Your task to perform on an android device: find which apps use the phone's location Image 0: 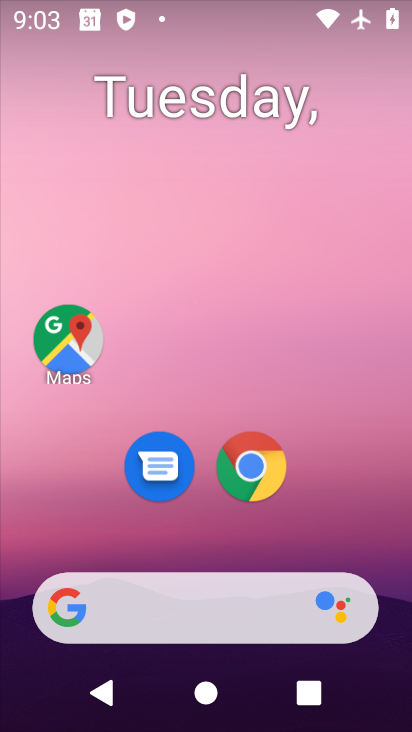
Step 0: drag from (371, 495) to (277, 102)
Your task to perform on an android device: find which apps use the phone's location Image 1: 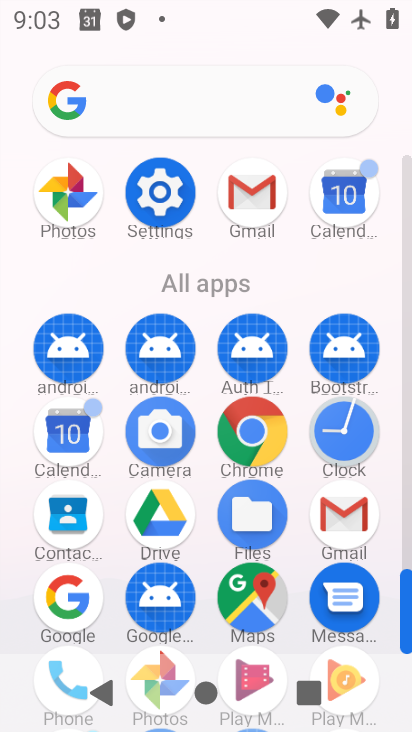
Step 1: click (160, 208)
Your task to perform on an android device: find which apps use the phone's location Image 2: 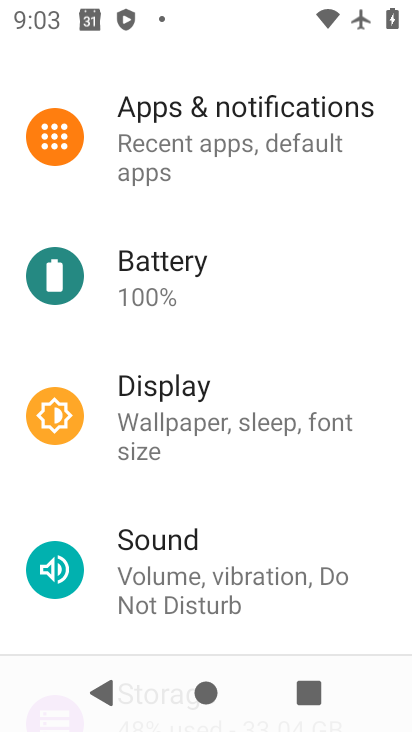
Step 2: drag from (297, 533) to (321, 56)
Your task to perform on an android device: find which apps use the phone's location Image 3: 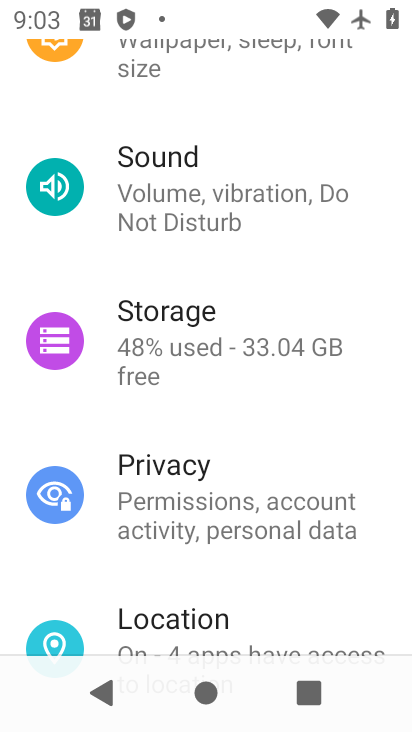
Step 3: drag from (256, 541) to (292, 108)
Your task to perform on an android device: find which apps use the phone's location Image 4: 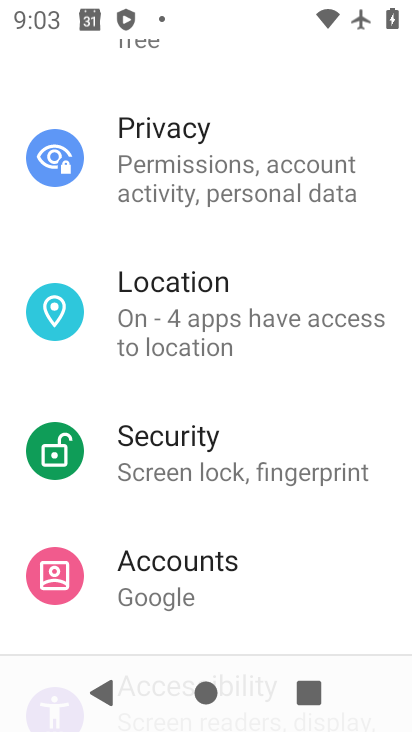
Step 4: click (221, 310)
Your task to perform on an android device: find which apps use the phone's location Image 5: 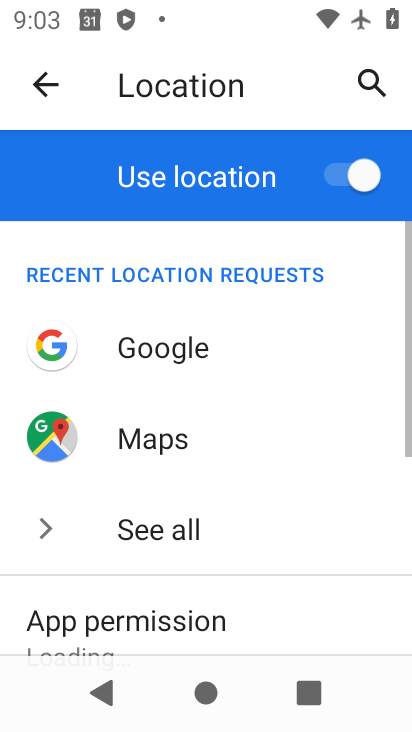
Step 5: drag from (279, 494) to (328, 59)
Your task to perform on an android device: find which apps use the phone's location Image 6: 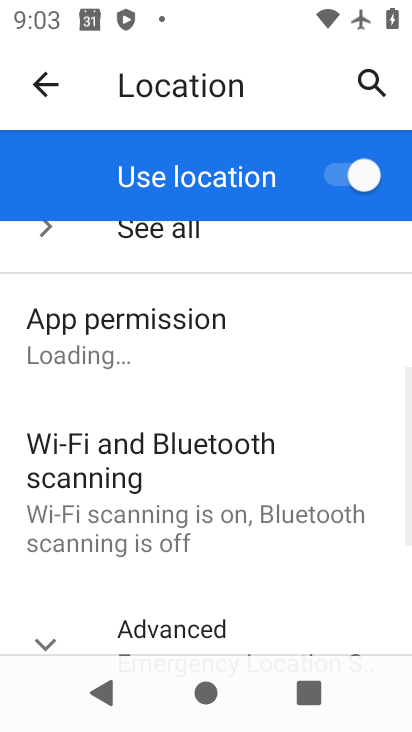
Step 6: drag from (169, 510) to (266, 242)
Your task to perform on an android device: find which apps use the phone's location Image 7: 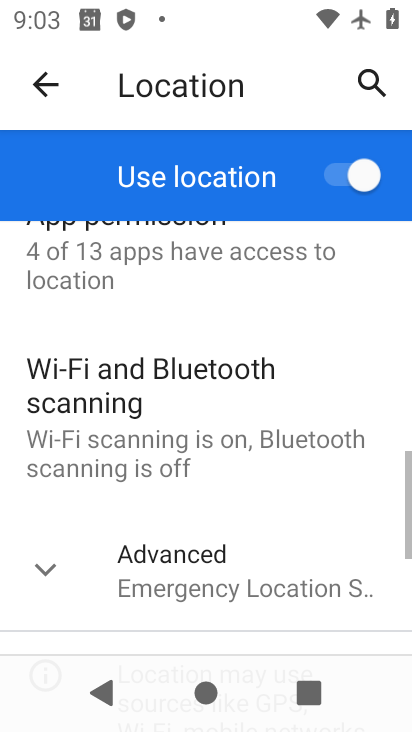
Step 7: click (191, 555)
Your task to perform on an android device: find which apps use the phone's location Image 8: 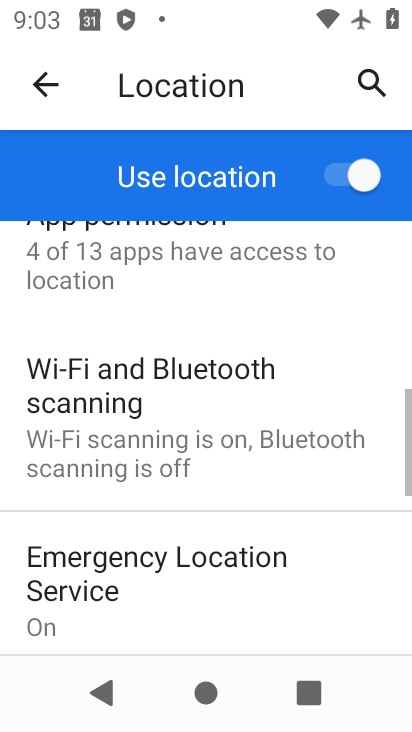
Step 8: drag from (323, 622) to (314, 240)
Your task to perform on an android device: find which apps use the phone's location Image 9: 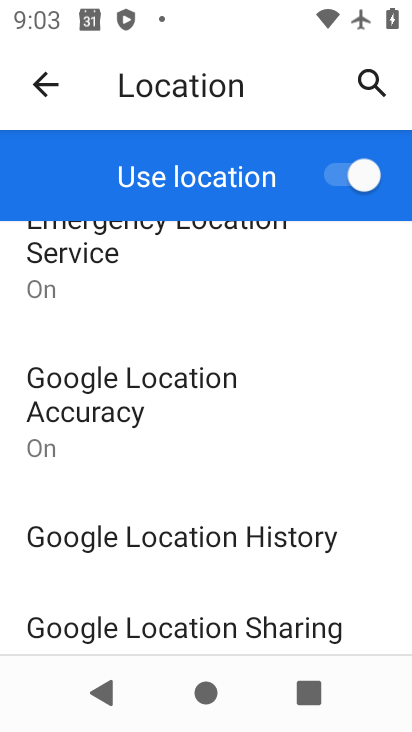
Step 9: drag from (267, 329) to (260, 725)
Your task to perform on an android device: find which apps use the phone's location Image 10: 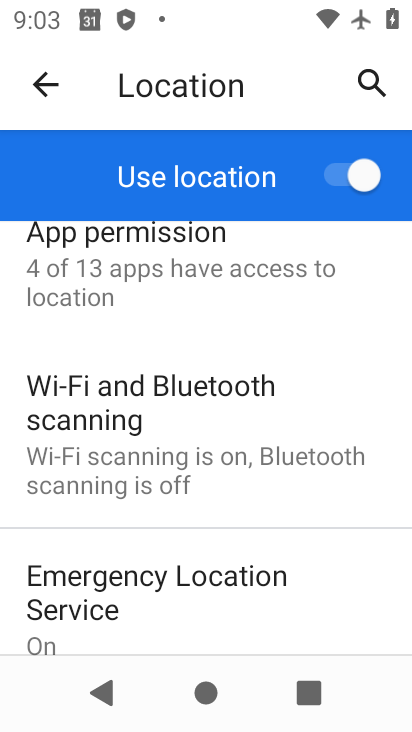
Step 10: click (178, 282)
Your task to perform on an android device: find which apps use the phone's location Image 11: 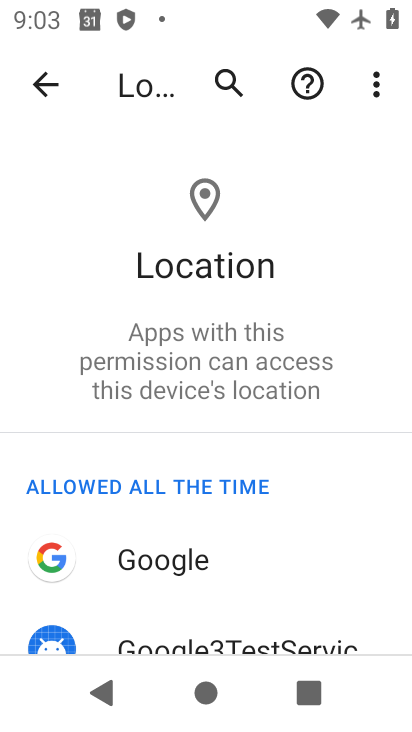
Step 11: task complete